Your task to perform on an android device: Open settings on Google Maps Image 0: 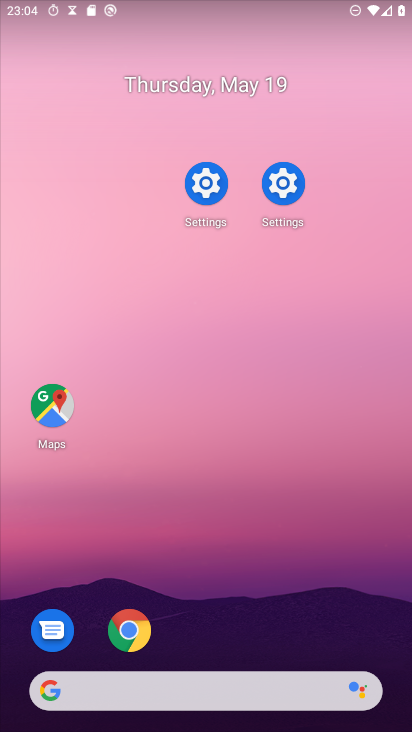
Step 0: drag from (343, 683) to (249, 227)
Your task to perform on an android device: Open settings on Google Maps Image 1: 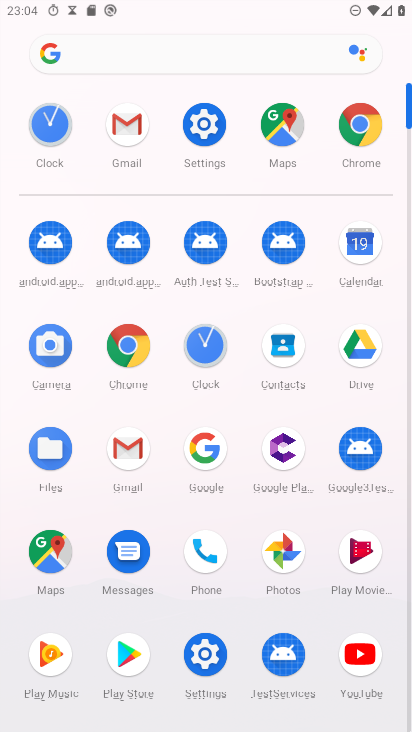
Step 1: click (290, 122)
Your task to perform on an android device: Open settings on Google Maps Image 2: 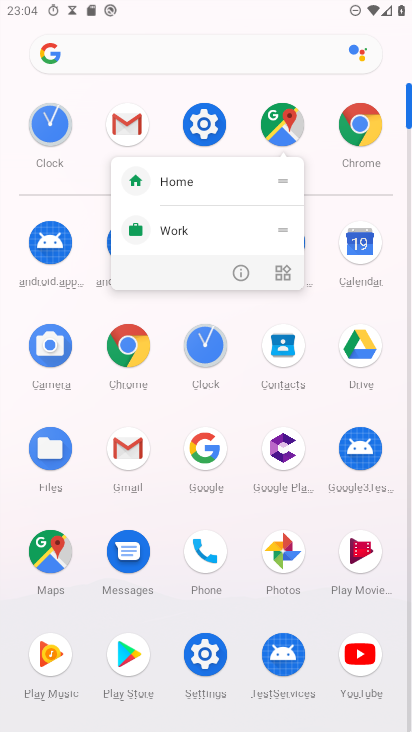
Step 2: click (289, 121)
Your task to perform on an android device: Open settings on Google Maps Image 3: 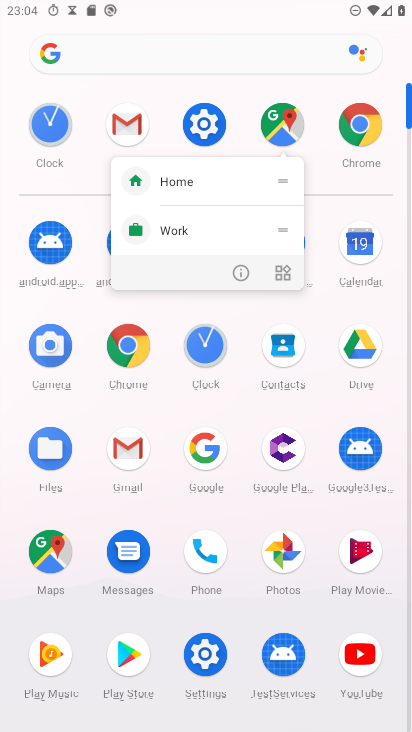
Step 3: click (286, 121)
Your task to perform on an android device: Open settings on Google Maps Image 4: 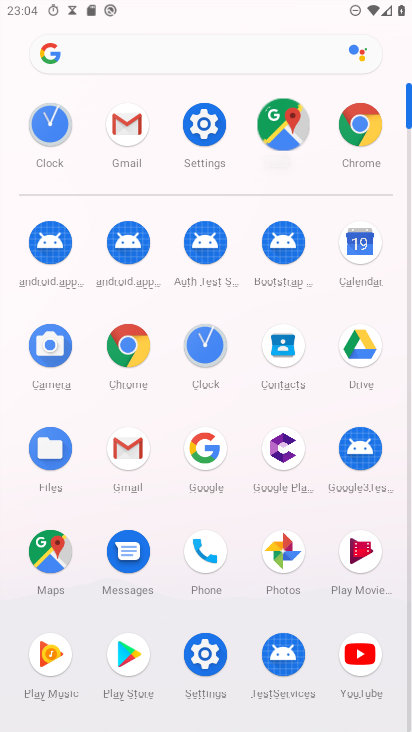
Step 4: click (286, 121)
Your task to perform on an android device: Open settings on Google Maps Image 5: 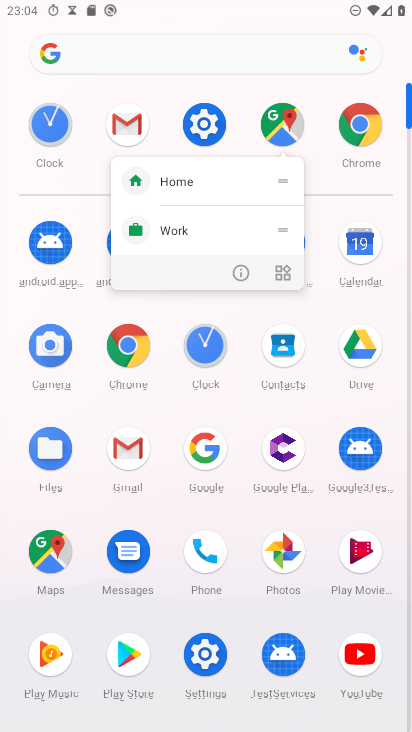
Step 5: click (286, 121)
Your task to perform on an android device: Open settings on Google Maps Image 6: 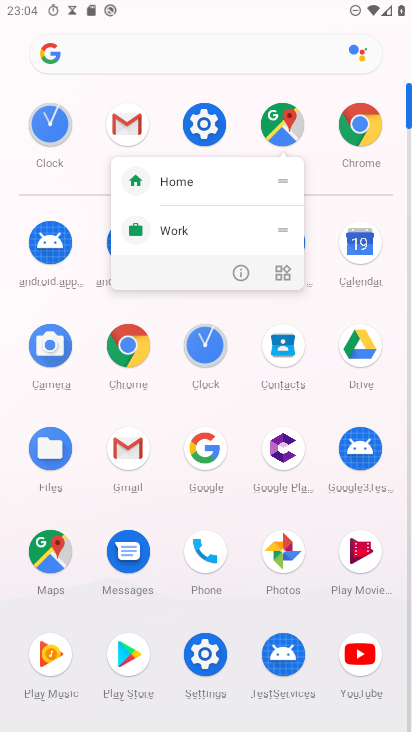
Step 6: click (286, 121)
Your task to perform on an android device: Open settings on Google Maps Image 7: 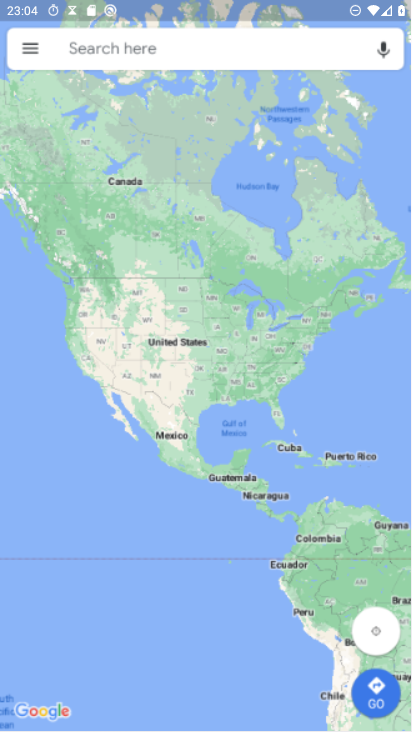
Step 7: click (282, 122)
Your task to perform on an android device: Open settings on Google Maps Image 8: 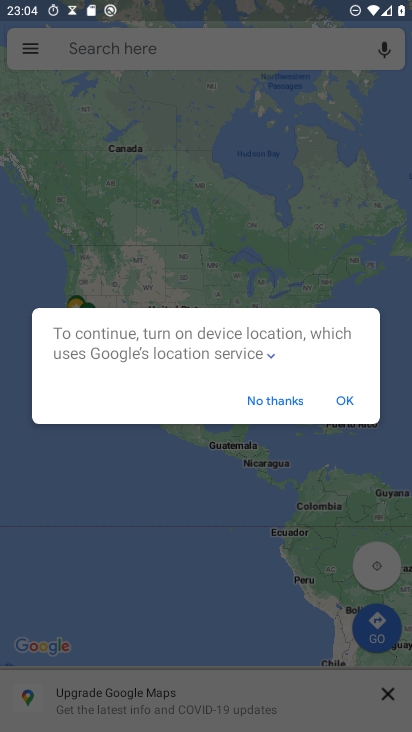
Step 8: task complete